Your task to perform on an android device: open app "Spotify: Music and Podcasts" (install if not already installed) and enter user name: "principled@inbox.com" and password: "arrests" Image 0: 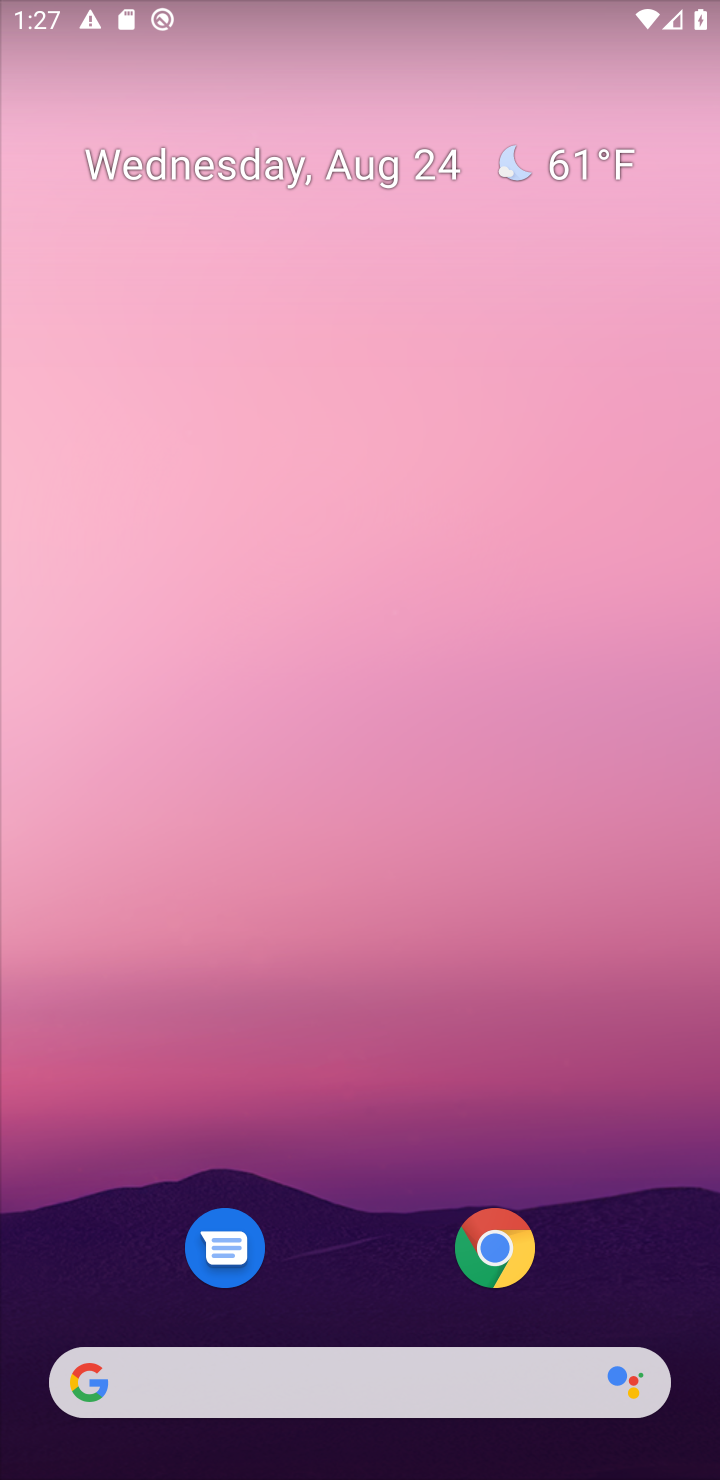
Step 0: drag from (279, 1309) to (311, 352)
Your task to perform on an android device: open app "Spotify: Music and Podcasts" (install if not already installed) and enter user name: "principled@inbox.com" and password: "arrests" Image 1: 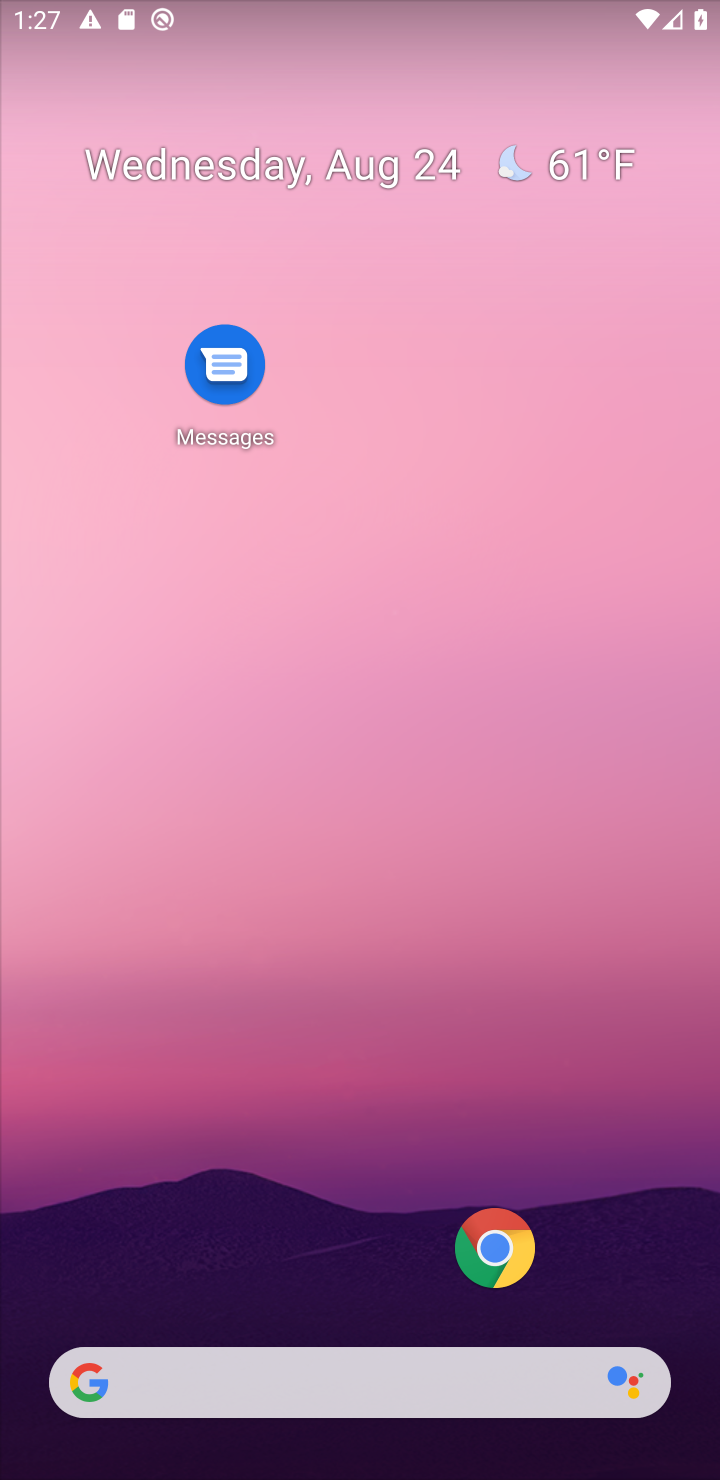
Step 1: drag from (345, 1175) to (368, 392)
Your task to perform on an android device: open app "Spotify: Music and Podcasts" (install if not already installed) and enter user name: "principled@inbox.com" and password: "arrests" Image 2: 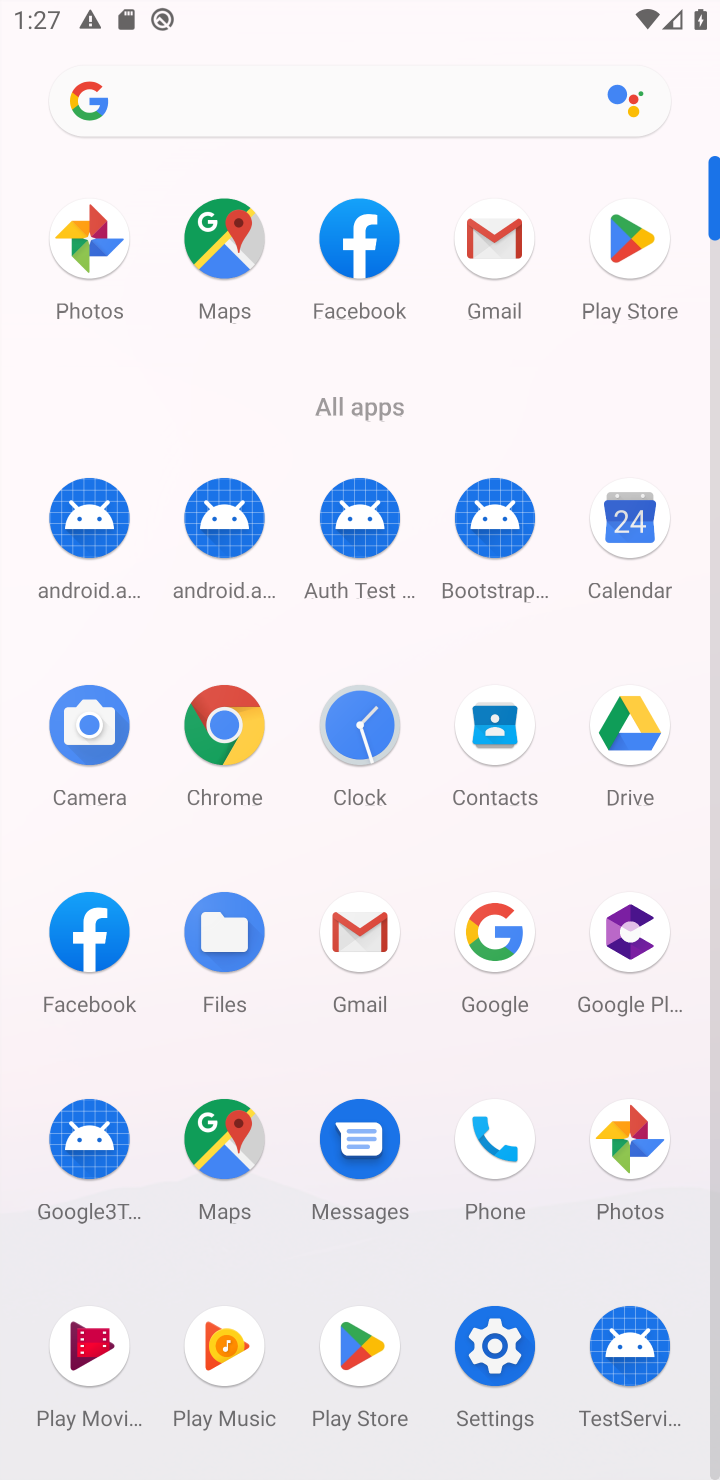
Step 2: click (631, 227)
Your task to perform on an android device: open app "Spotify: Music and Podcasts" (install if not already installed) and enter user name: "principled@inbox.com" and password: "arrests" Image 3: 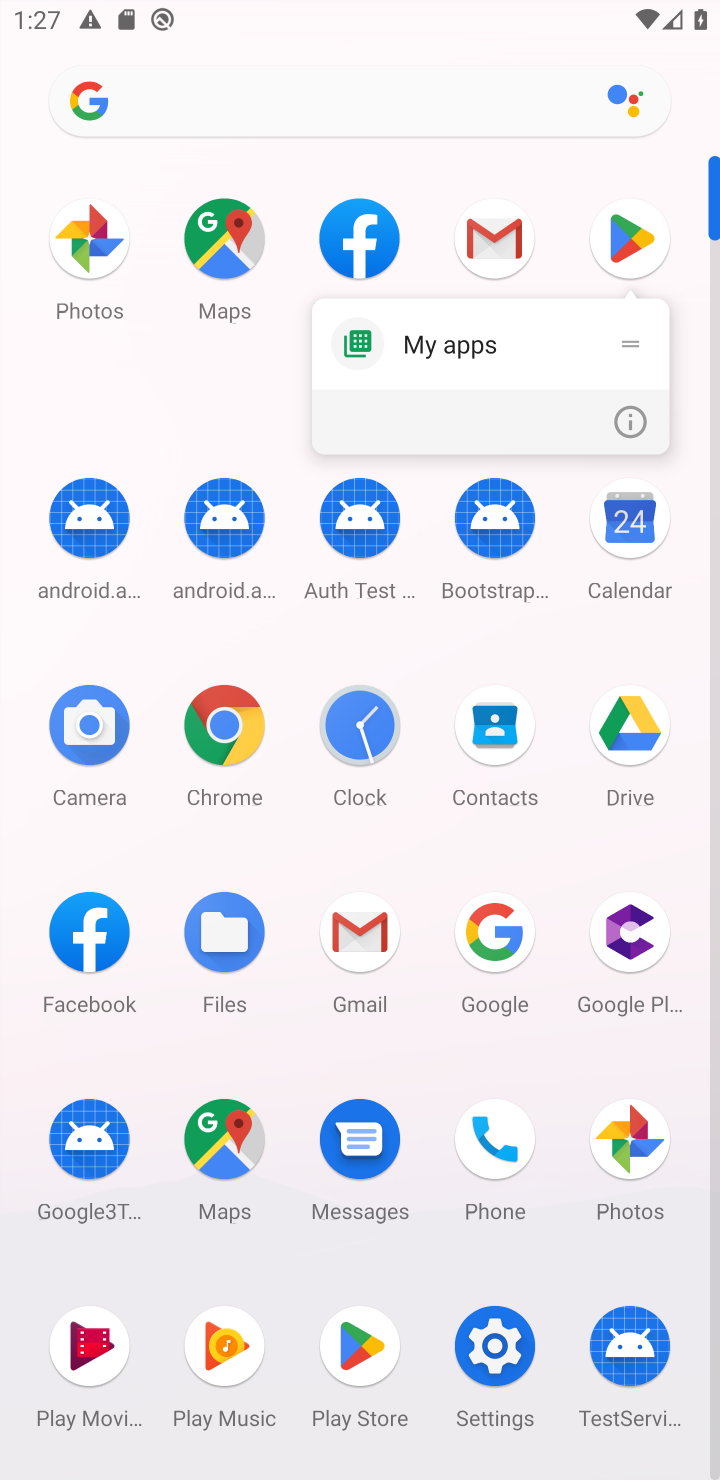
Step 3: click (615, 228)
Your task to perform on an android device: open app "Spotify: Music and Podcasts" (install if not already installed) and enter user name: "principled@inbox.com" and password: "arrests" Image 4: 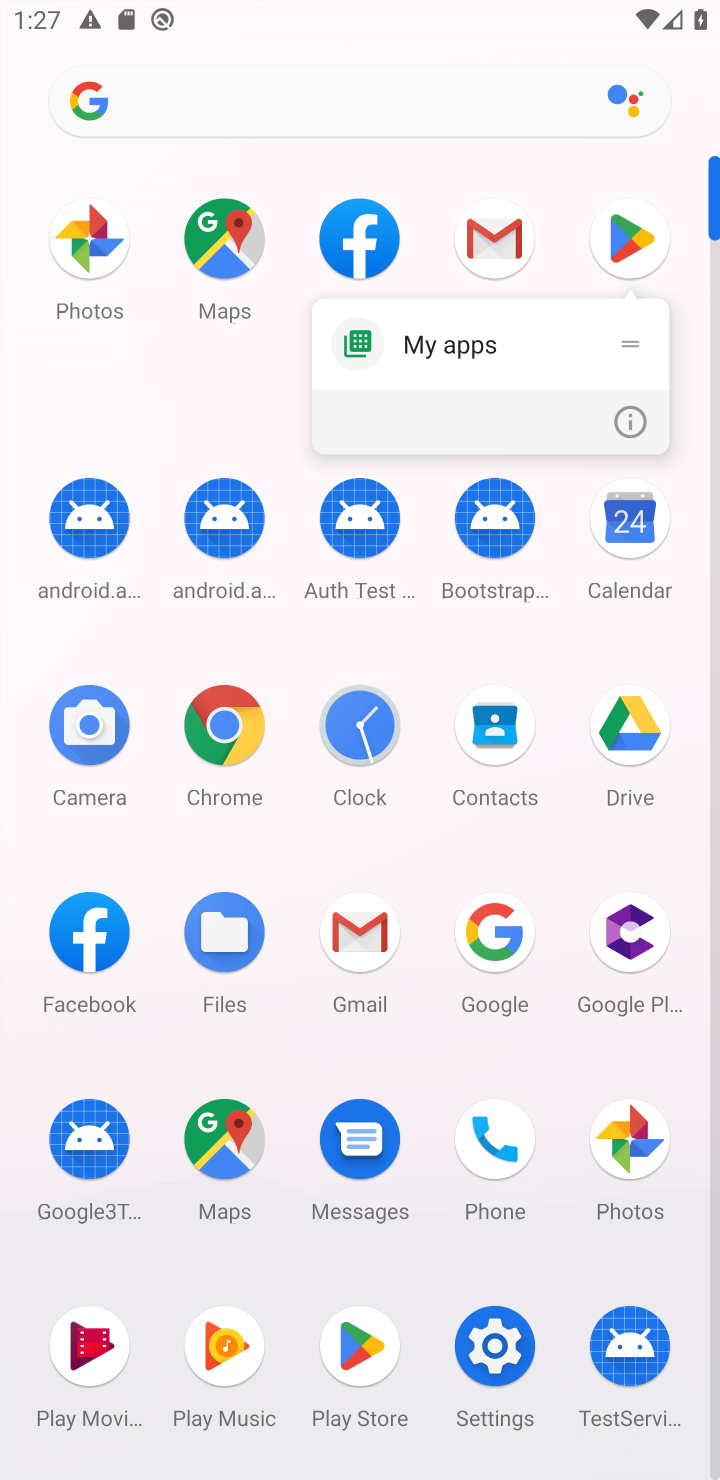
Step 4: click (615, 224)
Your task to perform on an android device: open app "Spotify: Music and Podcasts" (install if not already installed) and enter user name: "principled@inbox.com" and password: "arrests" Image 5: 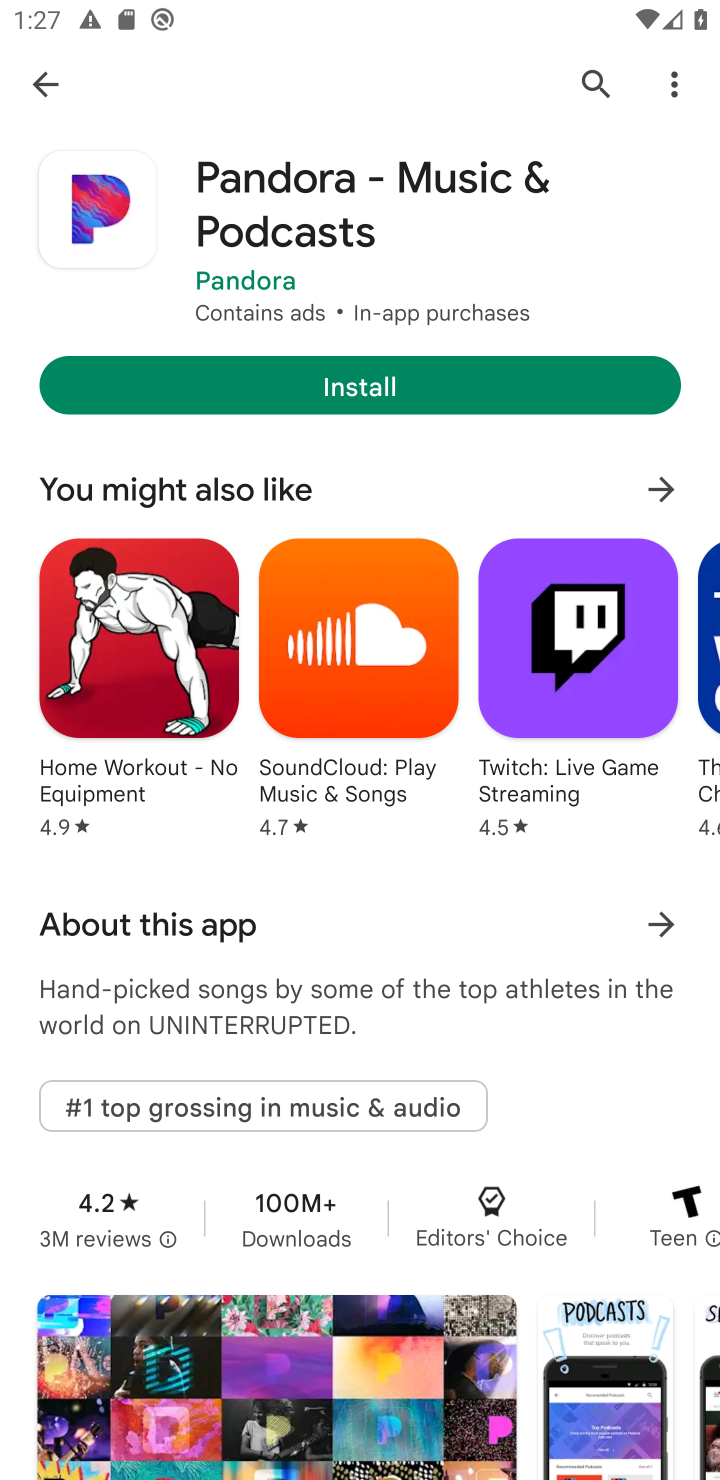
Step 5: click (42, 67)
Your task to perform on an android device: open app "Spotify: Music and Podcasts" (install if not already installed) and enter user name: "principled@inbox.com" and password: "arrests" Image 6: 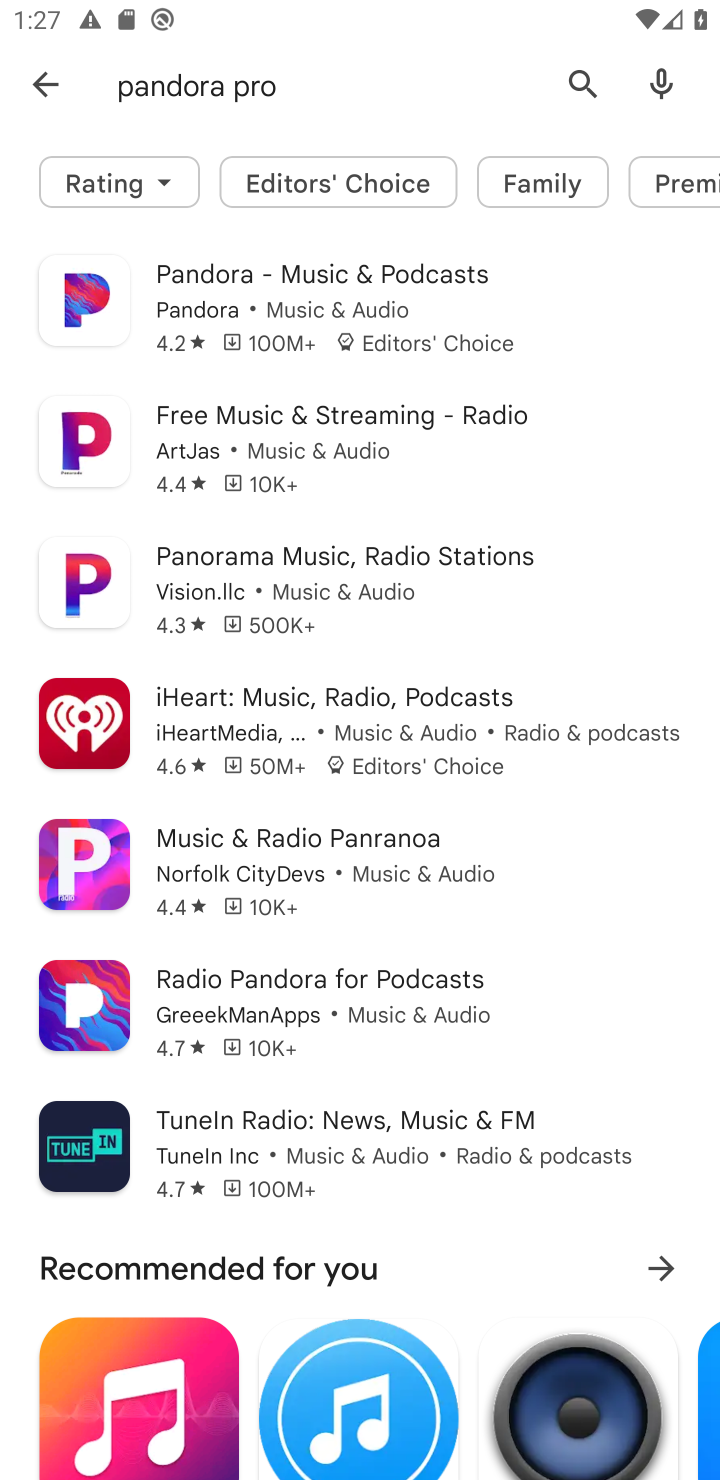
Step 6: click (31, 73)
Your task to perform on an android device: open app "Spotify: Music and Podcasts" (install if not already installed) and enter user name: "principled@inbox.com" and password: "arrests" Image 7: 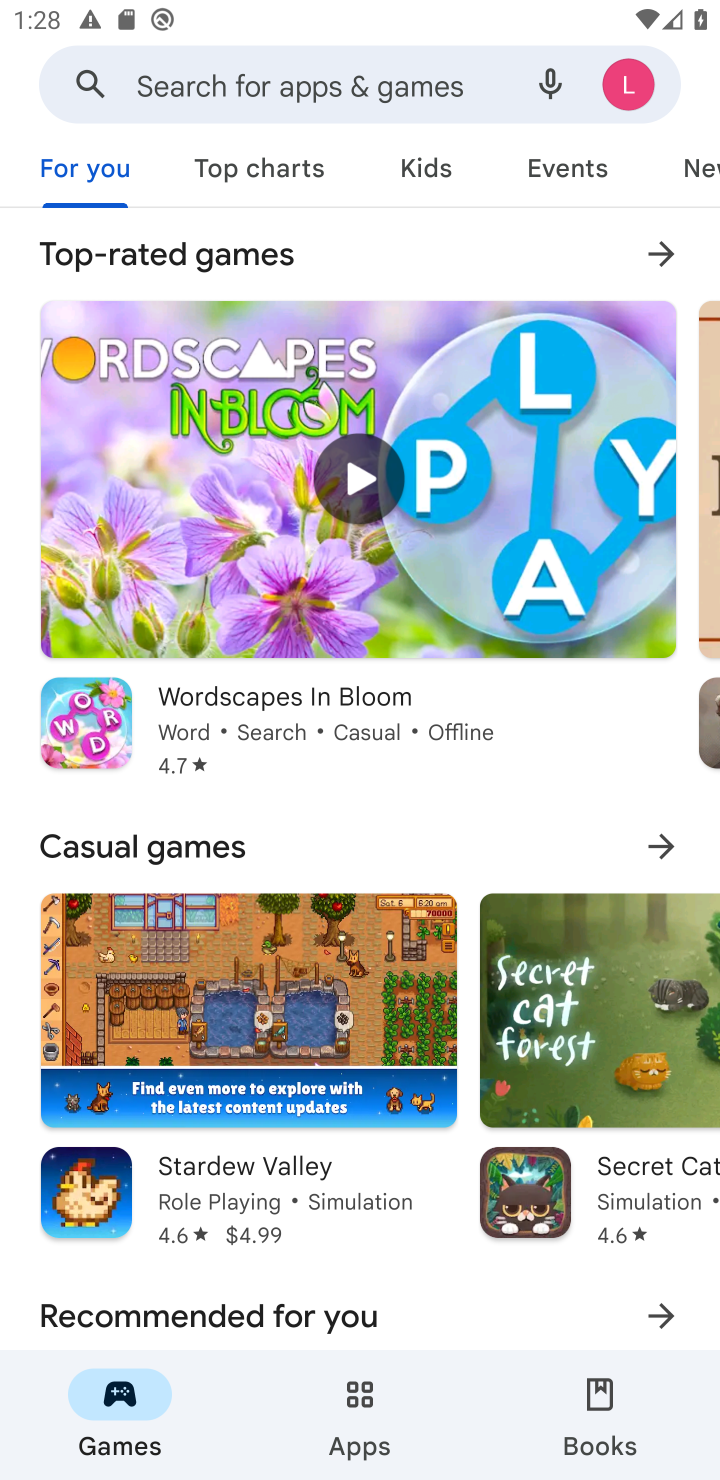
Step 7: click (358, 82)
Your task to perform on an android device: open app "Spotify: Music and Podcasts" (install if not already installed) and enter user name: "principled@inbox.com" and password: "arrests" Image 8: 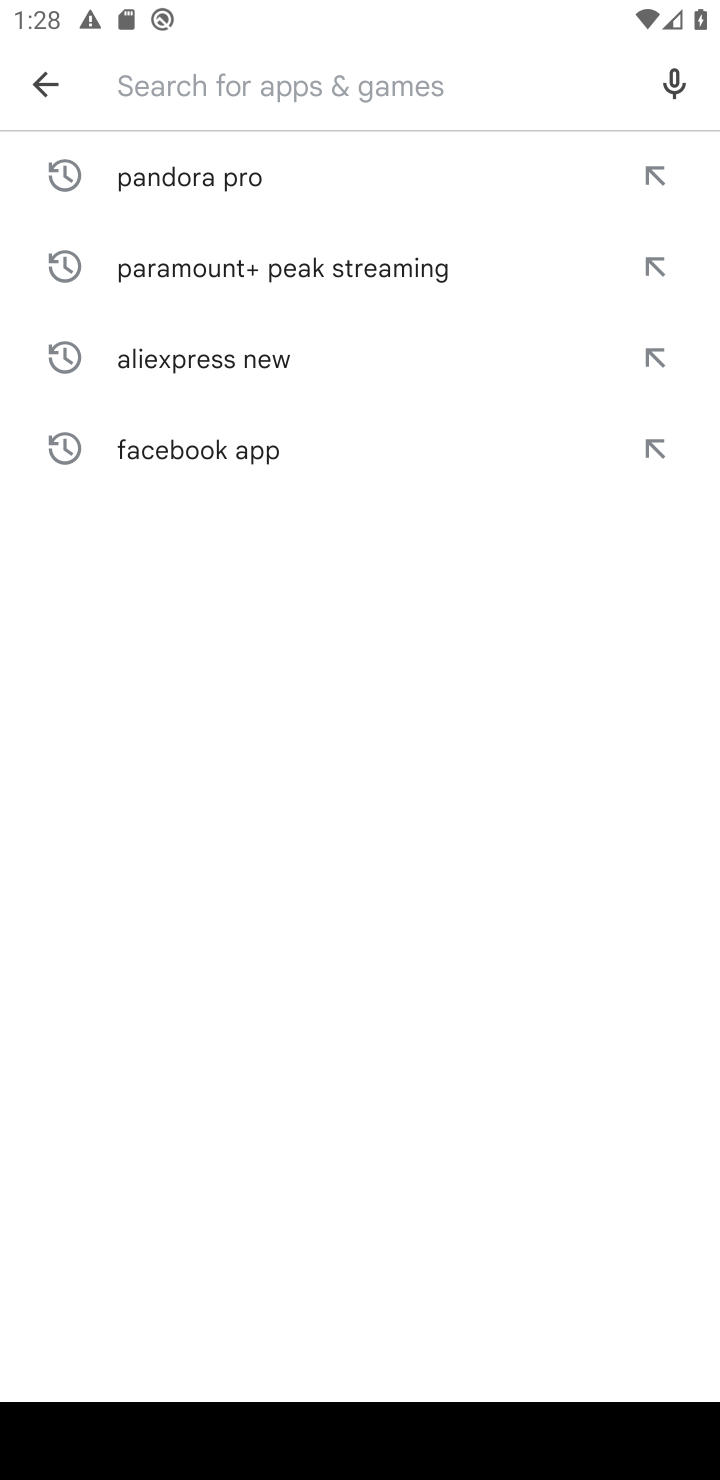
Step 8: type "Spotify: "
Your task to perform on an android device: open app "Spotify: Music and Podcasts" (install if not already installed) and enter user name: "principled@inbox.com" and password: "arrests" Image 9: 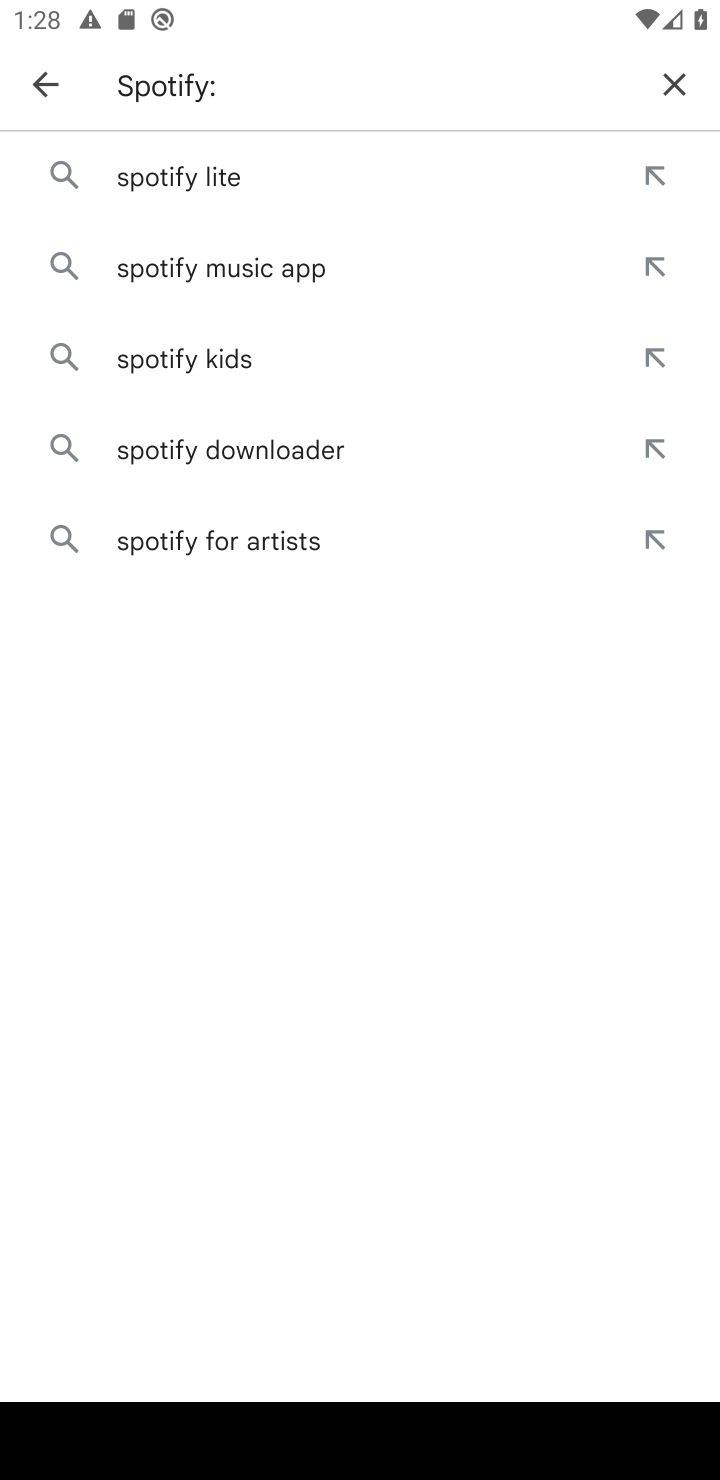
Step 9: click (210, 184)
Your task to perform on an android device: open app "Spotify: Music and Podcasts" (install if not already installed) and enter user name: "principled@inbox.com" and password: "arrests" Image 10: 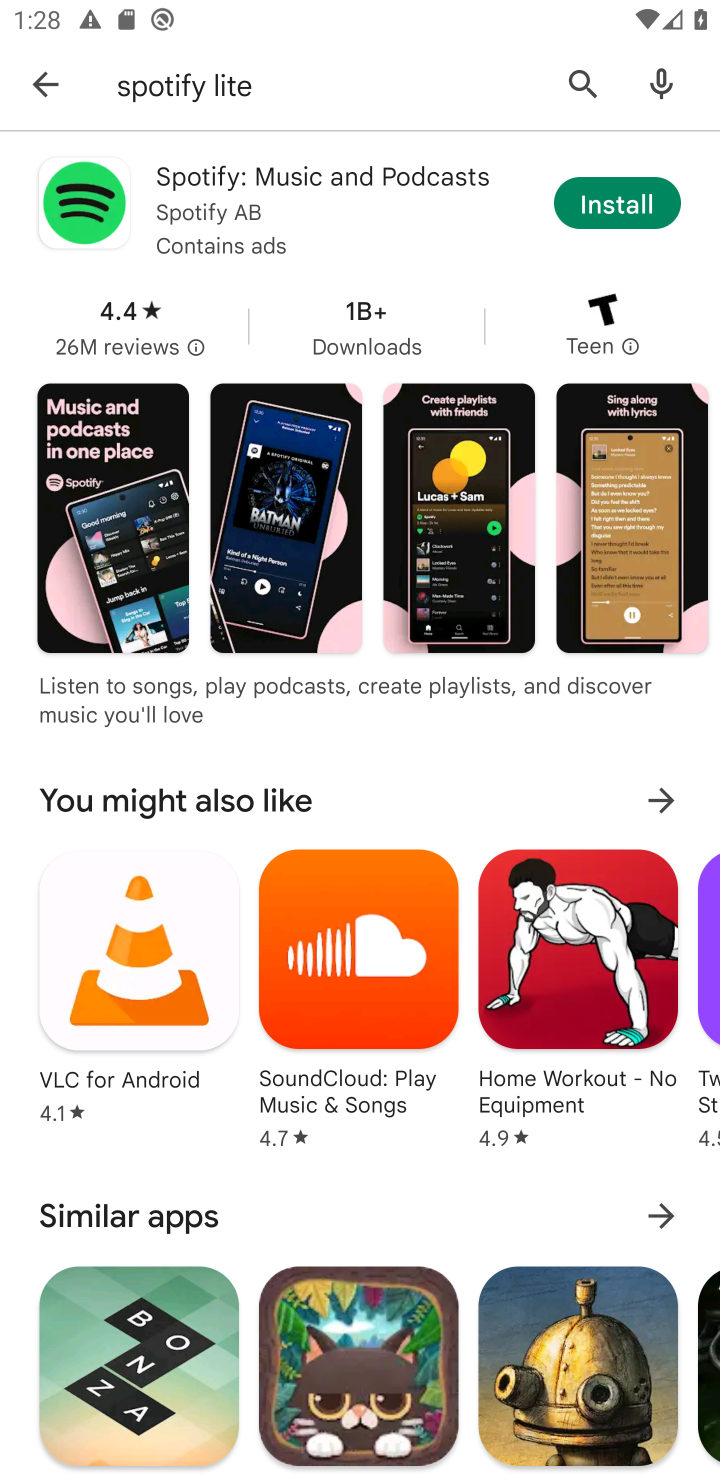
Step 10: click (598, 186)
Your task to perform on an android device: open app "Spotify: Music and Podcasts" (install if not already installed) and enter user name: "principled@inbox.com" and password: "arrests" Image 11: 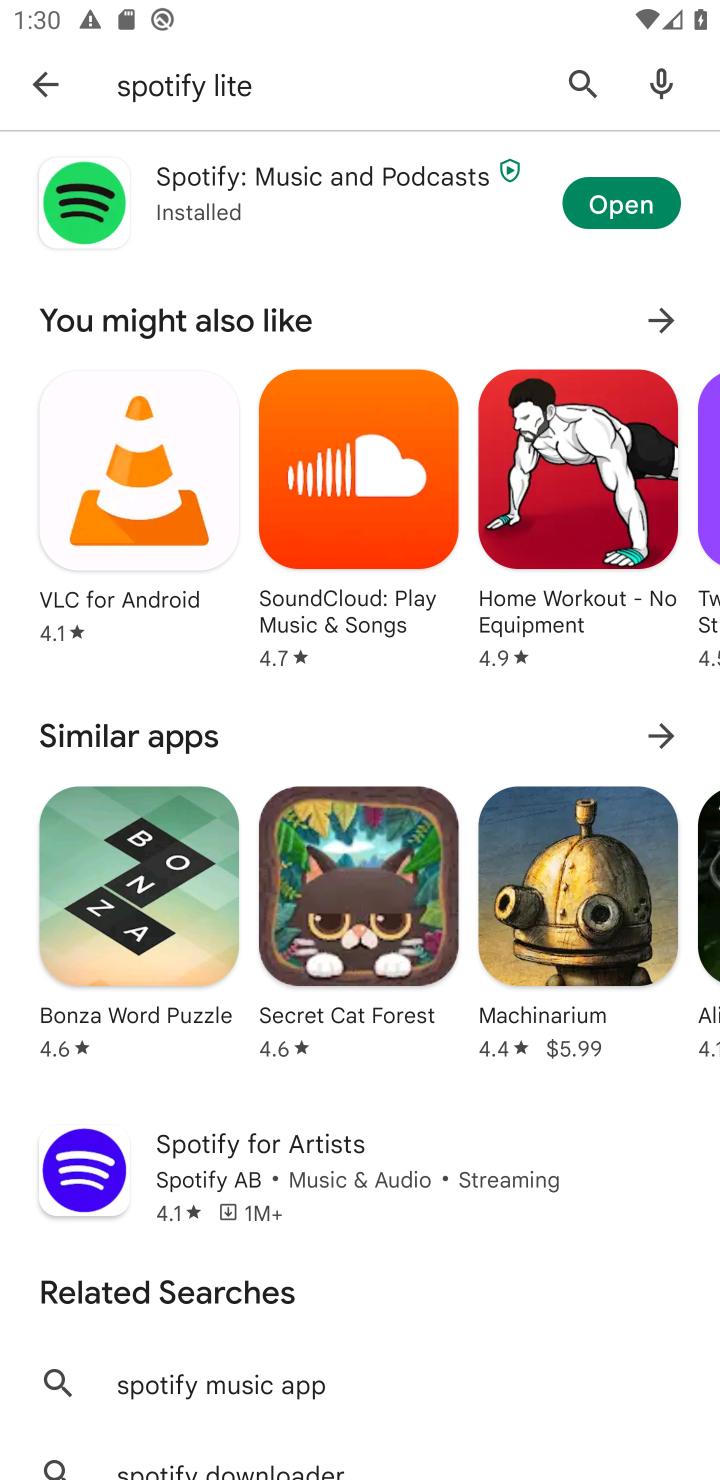
Step 11: task complete